Your task to perform on an android device: open a bookmark in the chrome app Image 0: 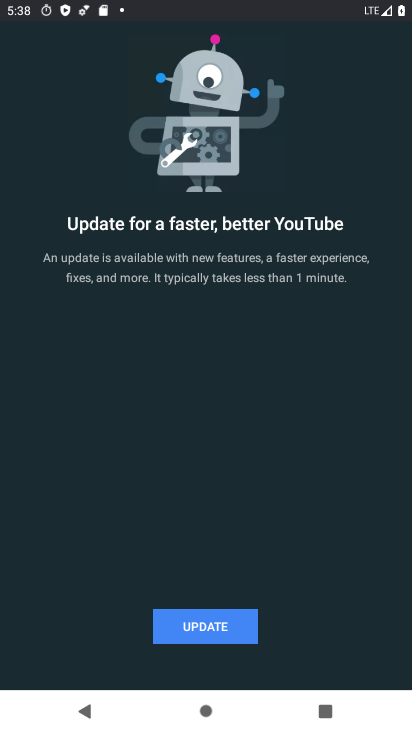
Step 0: press home button
Your task to perform on an android device: open a bookmark in the chrome app Image 1: 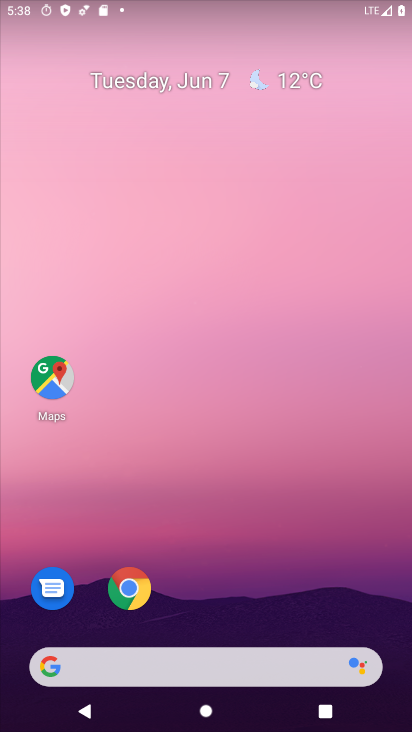
Step 1: click (133, 596)
Your task to perform on an android device: open a bookmark in the chrome app Image 2: 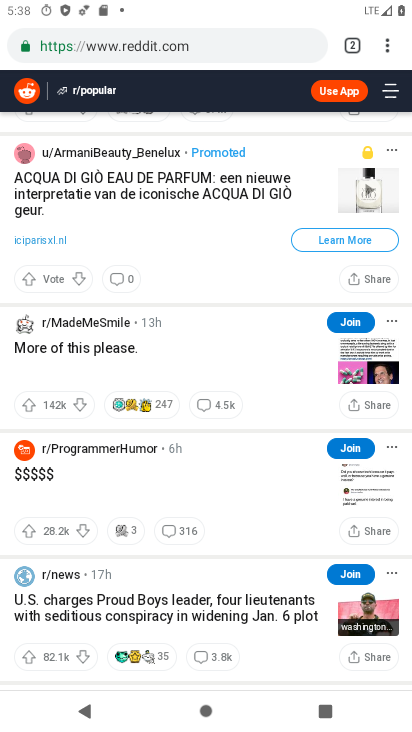
Step 2: click (387, 44)
Your task to perform on an android device: open a bookmark in the chrome app Image 3: 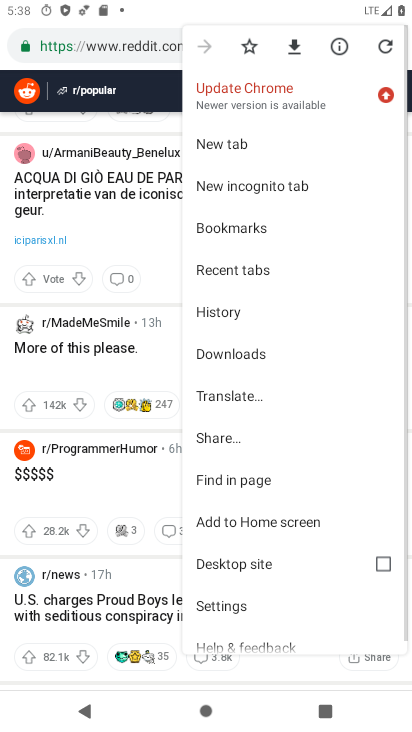
Step 3: click (241, 241)
Your task to perform on an android device: open a bookmark in the chrome app Image 4: 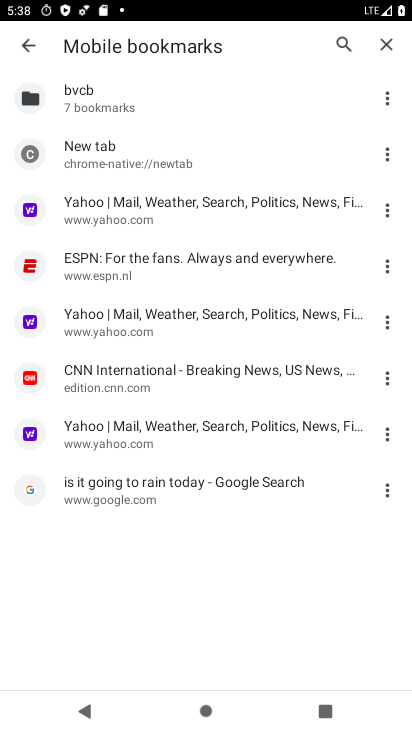
Step 4: click (171, 211)
Your task to perform on an android device: open a bookmark in the chrome app Image 5: 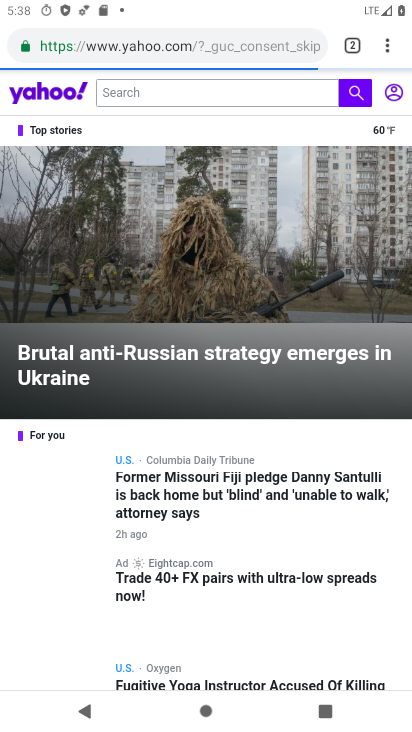
Step 5: task complete